Your task to perform on an android device: Go to network settings Image 0: 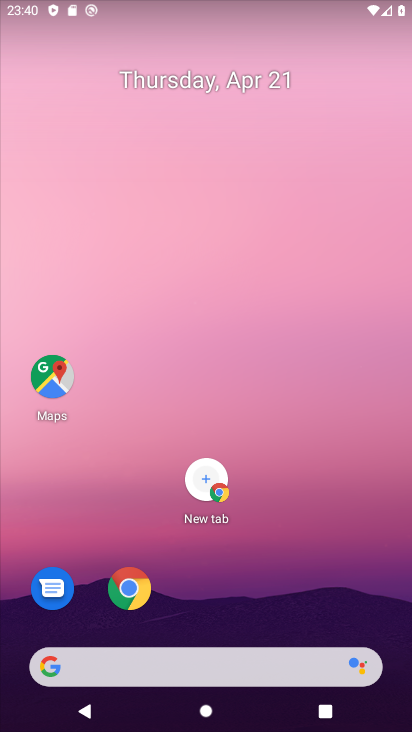
Step 0: drag from (203, 517) to (256, 49)
Your task to perform on an android device: Go to network settings Image 1: 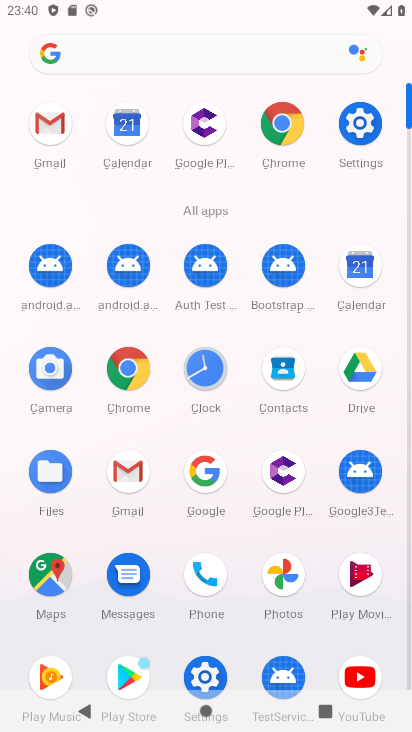
Step 1: click (350, 122)
Your task to perform on an android device: Go to network settings Image 2: 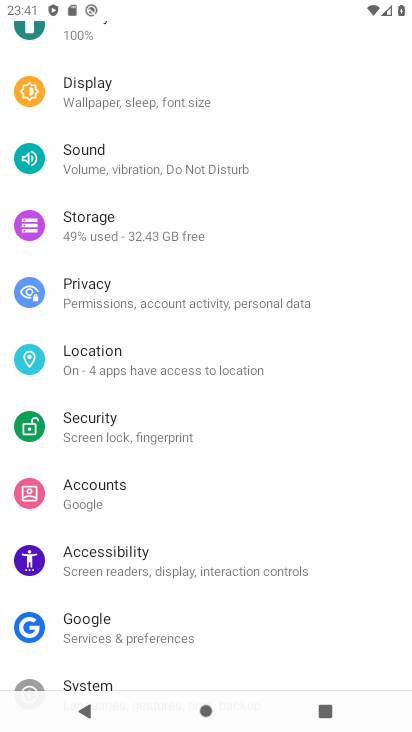
Step 2: drag from (144, 111) to (158, 722)
Your task to perform on an android device: Go to network settings Image 3: 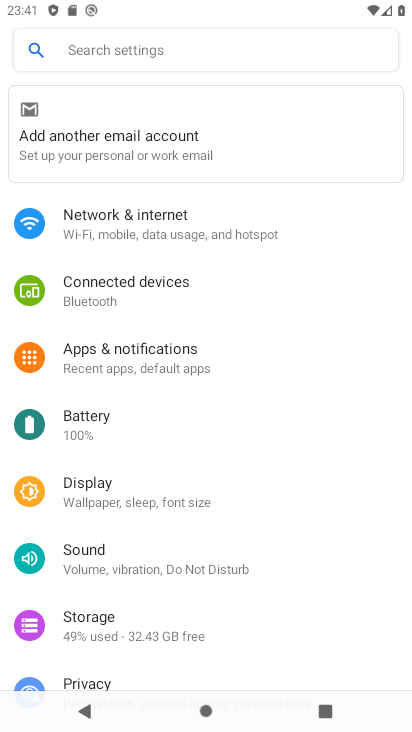
Step 3: click (185, 216)
Your task to perform on an android device: Go to network settings Image 4: 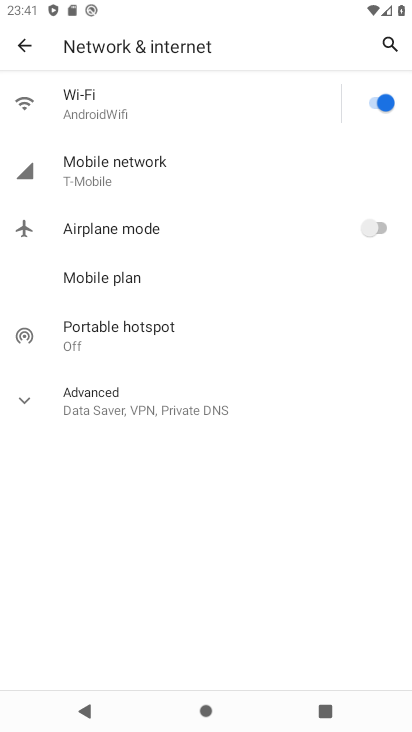
Step 4: click (161, 182)
Your task to perform on an android device: Go to network settings Image 5: 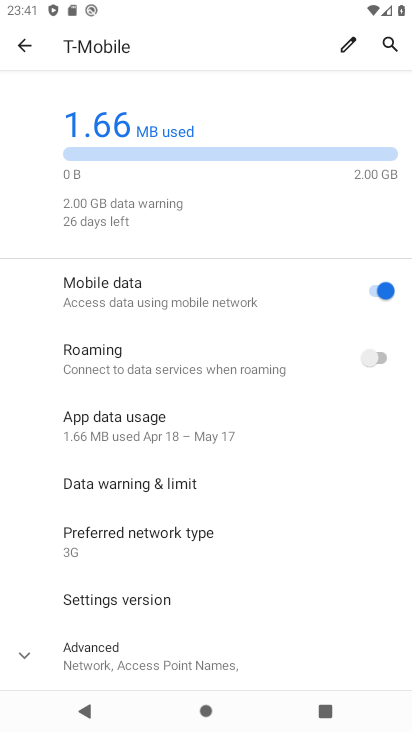
Step 5: task complete